Your task to perform on an android device: Open the phone app and click the voicemail tab. Image 0: 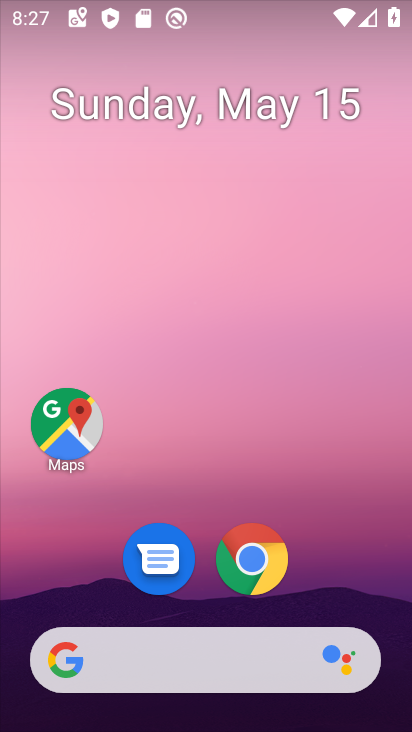
Step 0: drag from (335, 565) to (330, 211)
Your task to perform on an android device: Open the phone app and click the voicemail tab. Image 1: 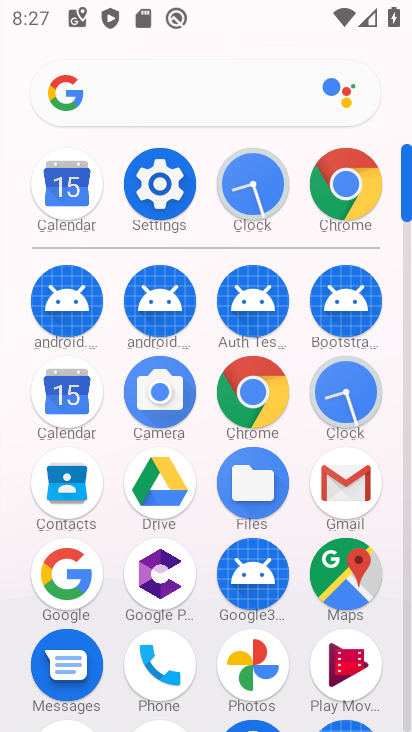
Step 1: press home button
Your task to perform on an android device: Open the phone app and click the voicemail tab. Image 2: 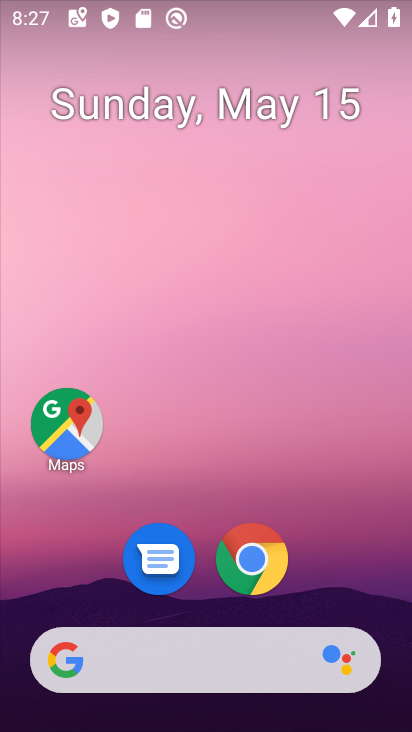
Step 2: drag from (343, 547) to (371, 82)
Your task to perform on an android device: Open the phone app and click the voicemail tab. Image 3: 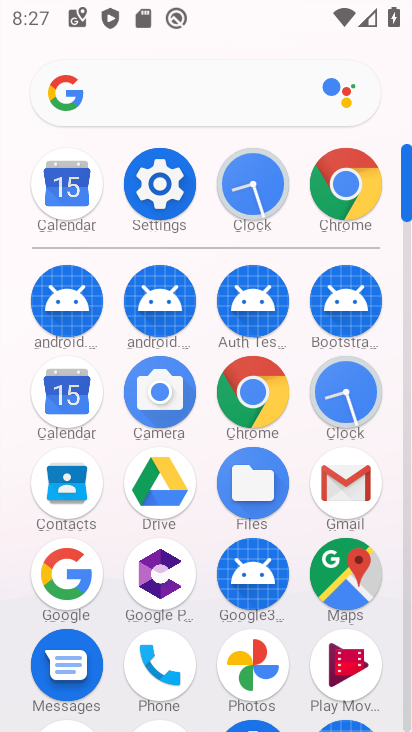
Step 3: click (410, 637)
Your task to perform on an android device: Open the phone app and click the voicemail tab. Image 4: 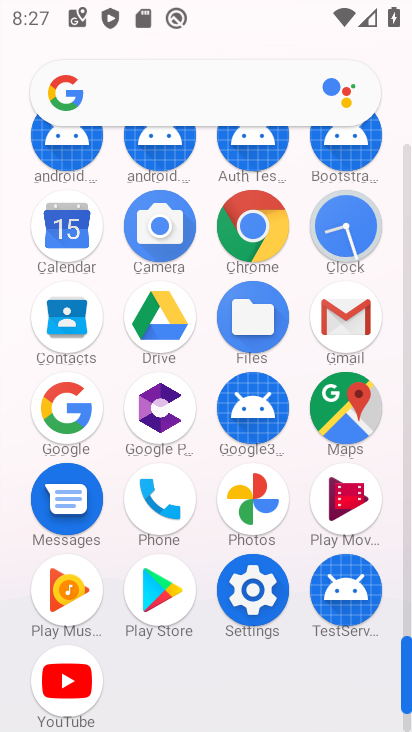
Step 4: click (185, 489)
Your task to perform on an android device: Open the phone app and click the voicemail tab. Image 5: 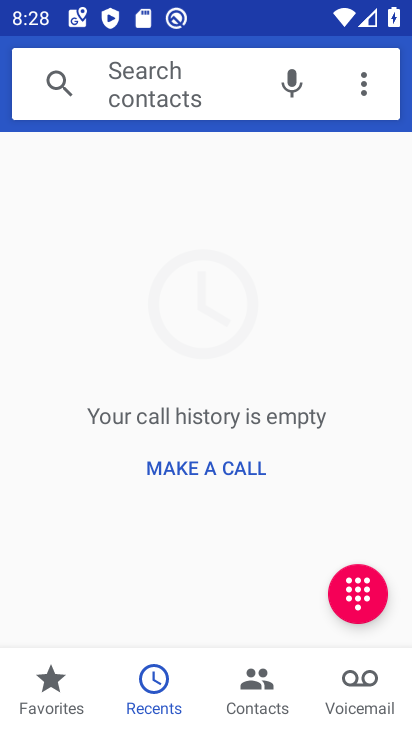
Step 5: click (354, 683)
Your task to perform on an android device: Open the phone app and click the voicemail tab. Image 6: 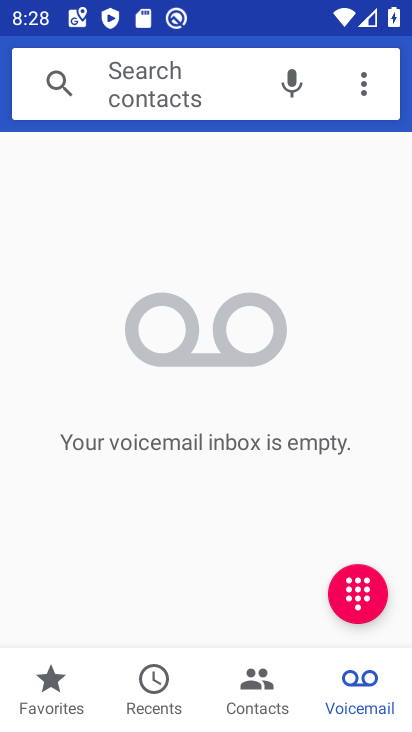
Step 6: task complete